Your task to perform on an android device: Add "jbl flip 4" to the cart on bestbuy, then select checkout. Image 0: 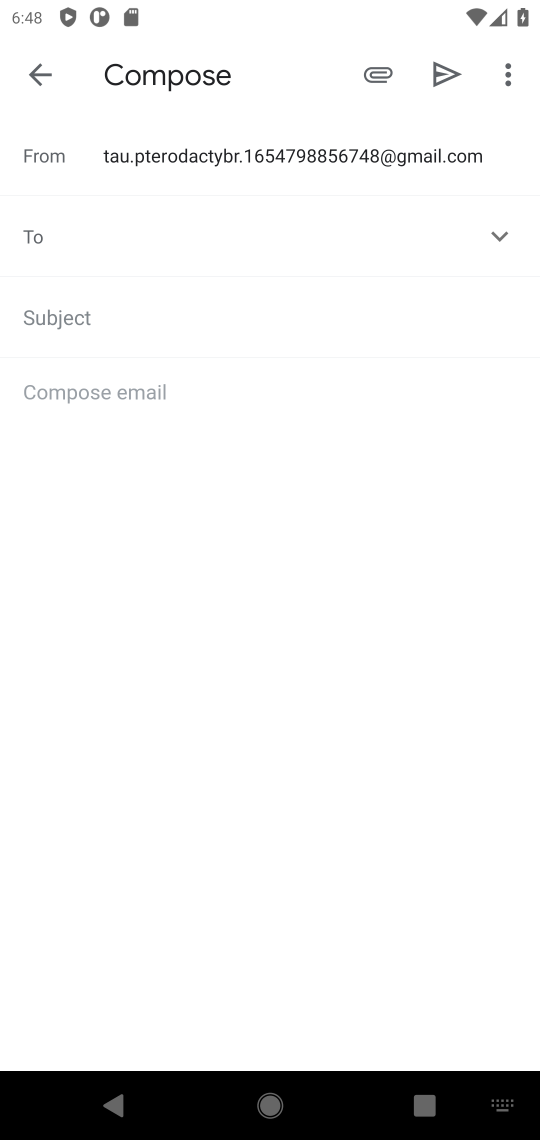
Step 0: press home button
Your task to perform on an android device: Add "jbl flip 4" to the cart on bestbuy, then select checkout. Image 1: 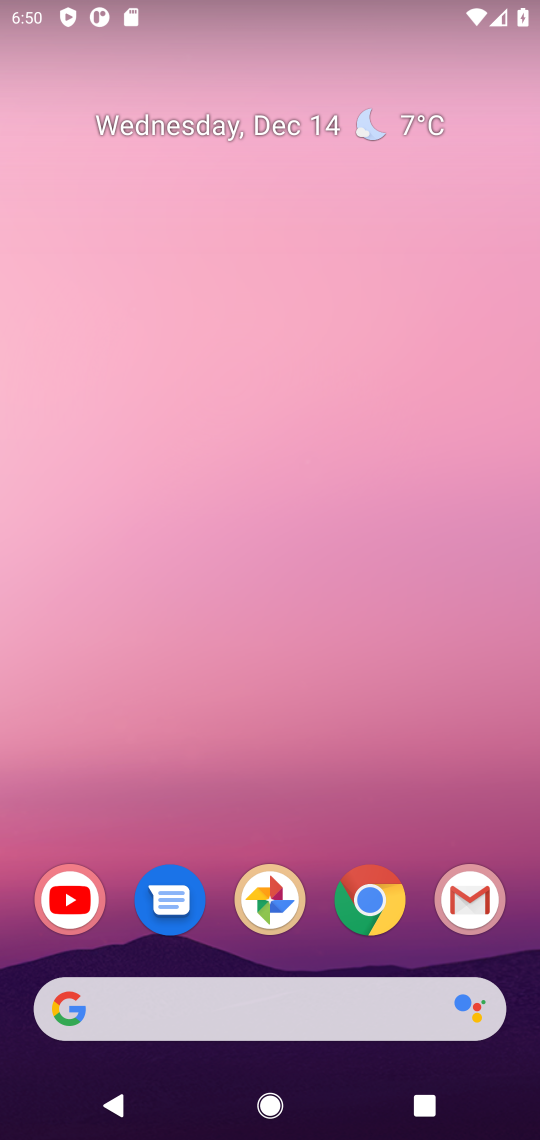
Step 1: click (271, 1011)
Your task to perform on an android device: Add "jbl flip 4" to the cart on bestbuy, then select checkout. Image 2: 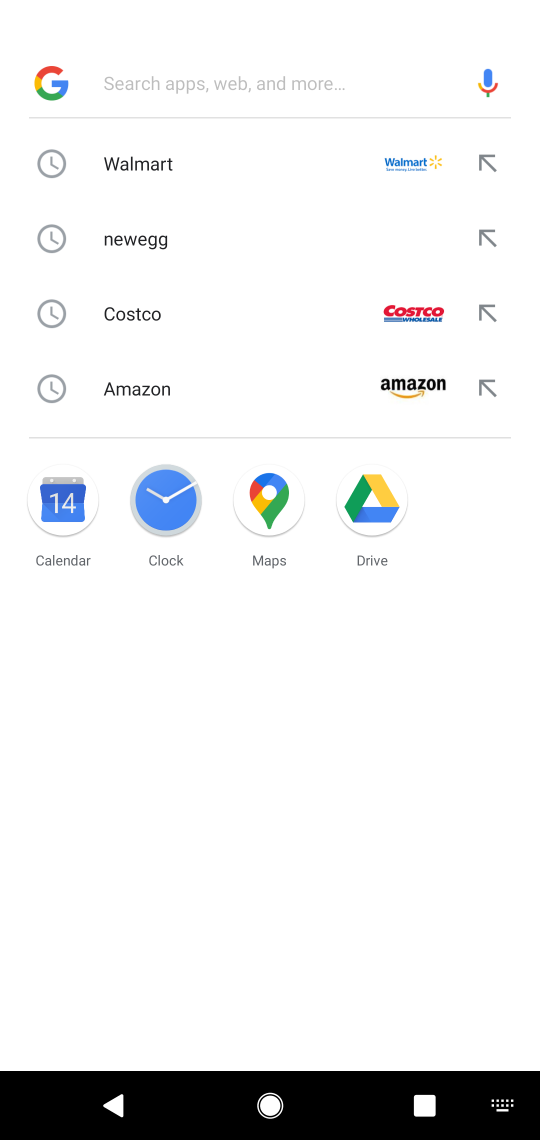
Step 2: type "bestbuy"
Your task to perform on an android device: Add "jbl flip 4" to the cart on bestbuy, then select checkout. Image 3: 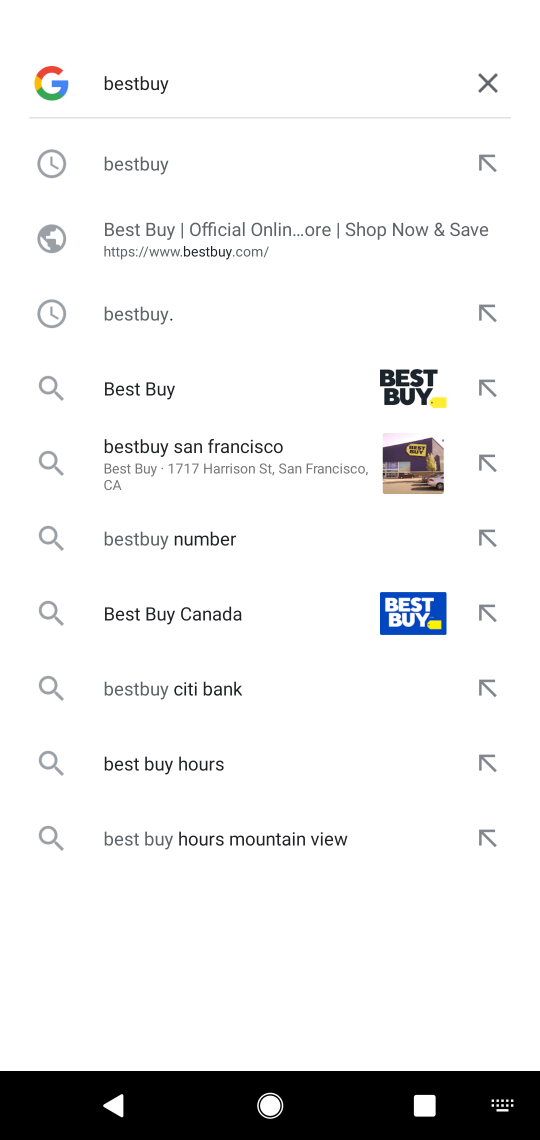
Step 3: click (180, 393)
Your task to perform on an android device: Add "jbl flip 4" to the cart on bestbuy, then select checkout. Image 4: 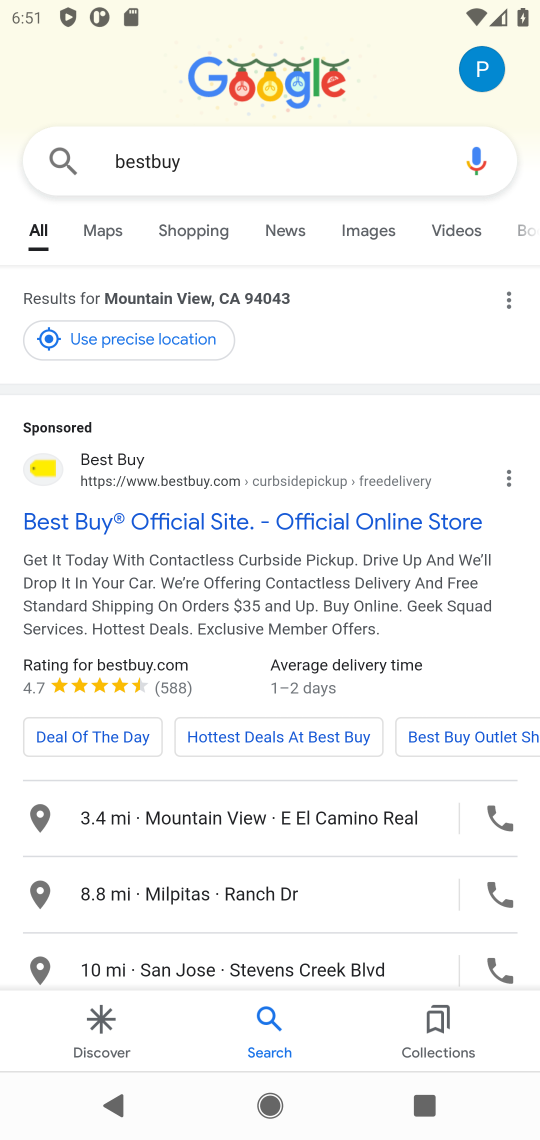
Step 4: click (87, 528)
Your task to perform on an android device: Add "jbl flip 4" to the cart on bestbuy, then select checkout. Image 5: 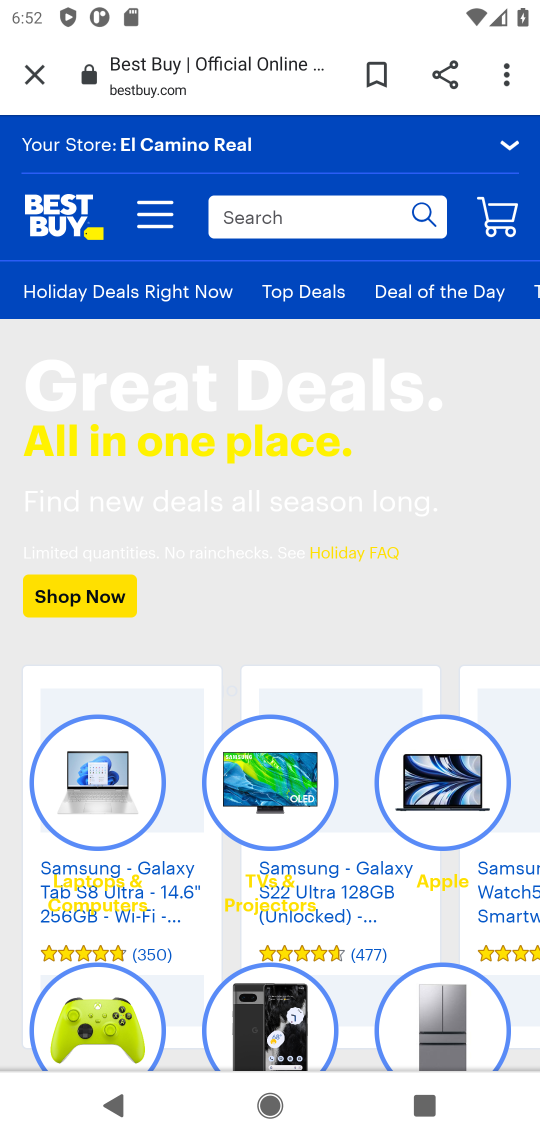
Step 5: click (240, 213)
Your task to perform on an android device: Add "jbl flip 4" to the cart on bestbuy, then select checkout. Image 6: 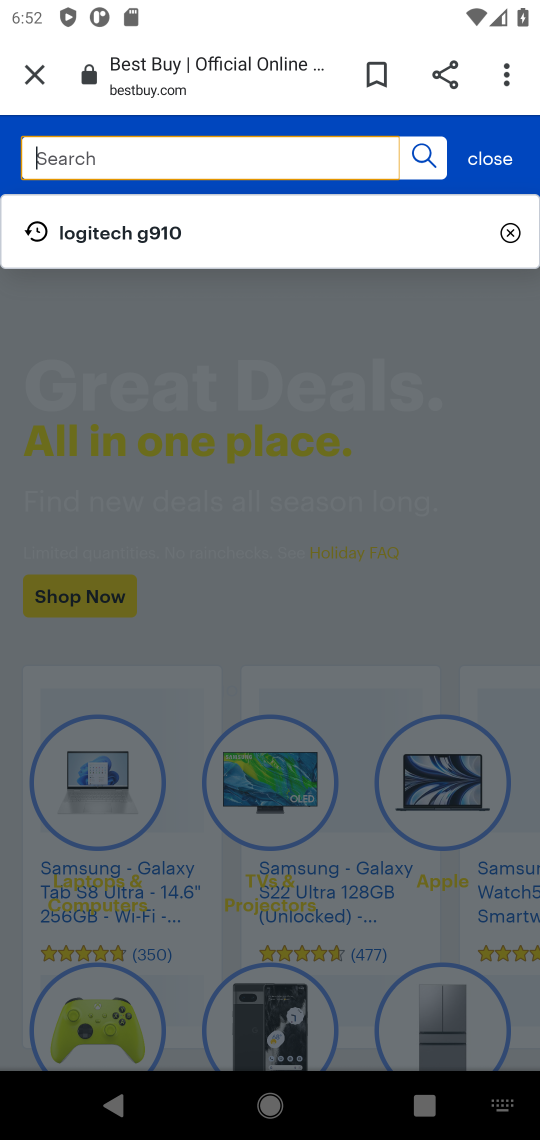
Step 6: type "jbl flip 4"
Your task to perform on an android device: Add "jbl flip 4" to the cart on bestbuy, then select checkout. Image 7: 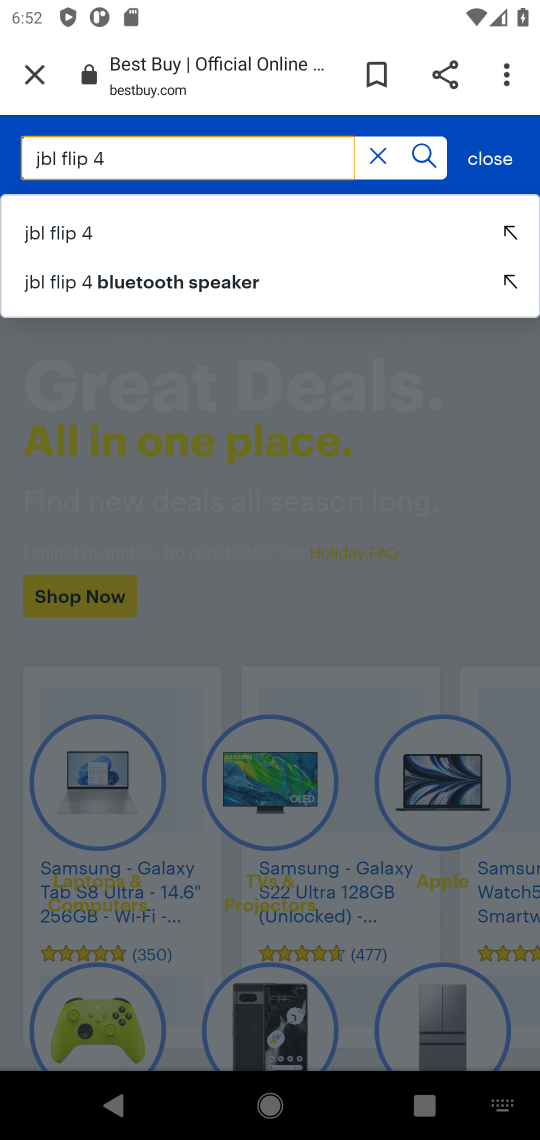
Step 7: click (77, 231)
Your task to perform on an android device: Add "jbl flip 4" to the cart on bestbuy, then select checkout. Image 8: 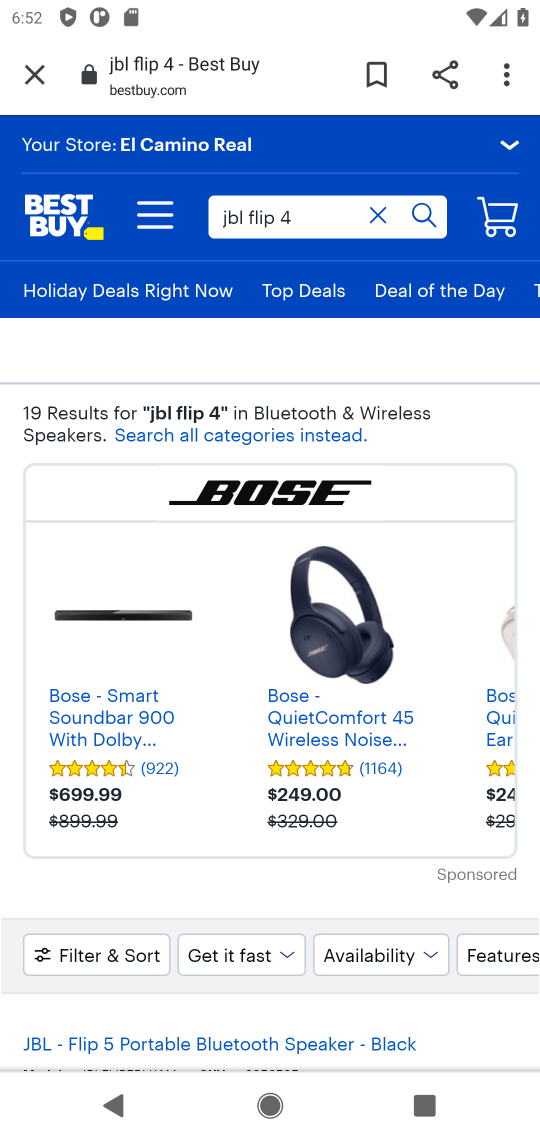
Step 8: drag from (338, 1017) to (338, 707)
Your task to perform on an android device: Add "jbl flip 4" to the cart on bestbuy, then select checkout. Image 9: 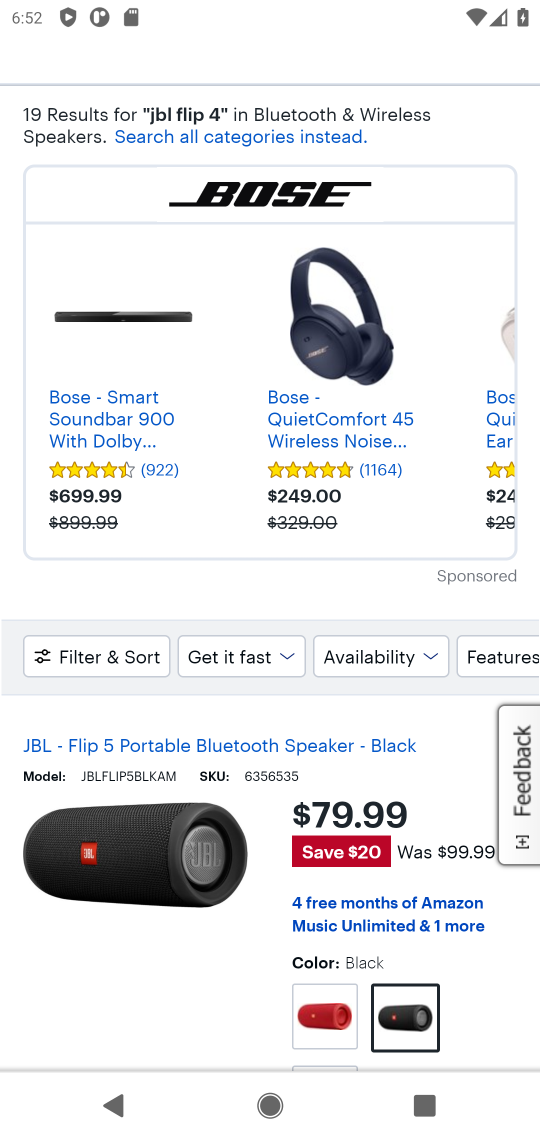
Step 9: drag from (289, 794) to (282, 513)
Your task to perform on an android device: Add "jbl flip 4" to the cart on bestbuy, then select checkout. Image 10: 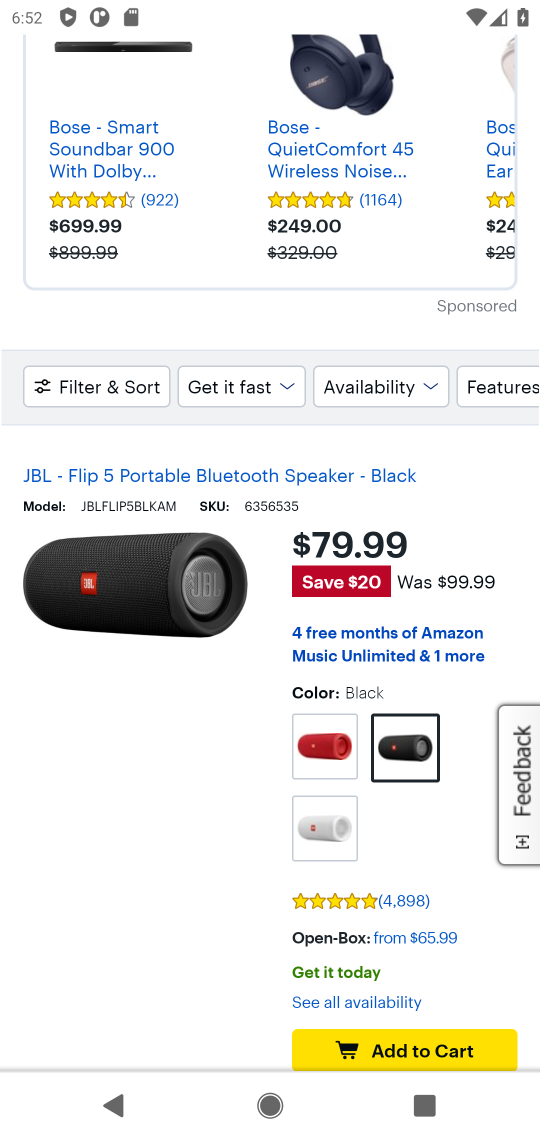
Step 10: click (389, 1047)
Your task to perform on an android device: Add "jbl flip 4" to the cart on bestbuy, then select checkout. Image 11: 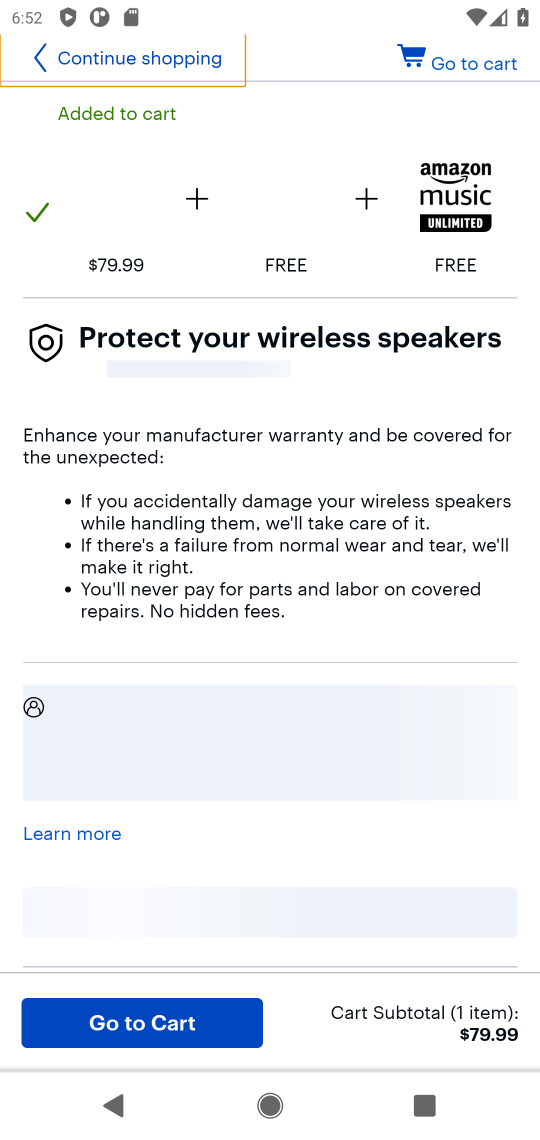
Step 11: click (120, 1030)
Your task to perform on an android device: Add "jbl flip 4" to the cart on bestbuy, then select checkout. Image 12: 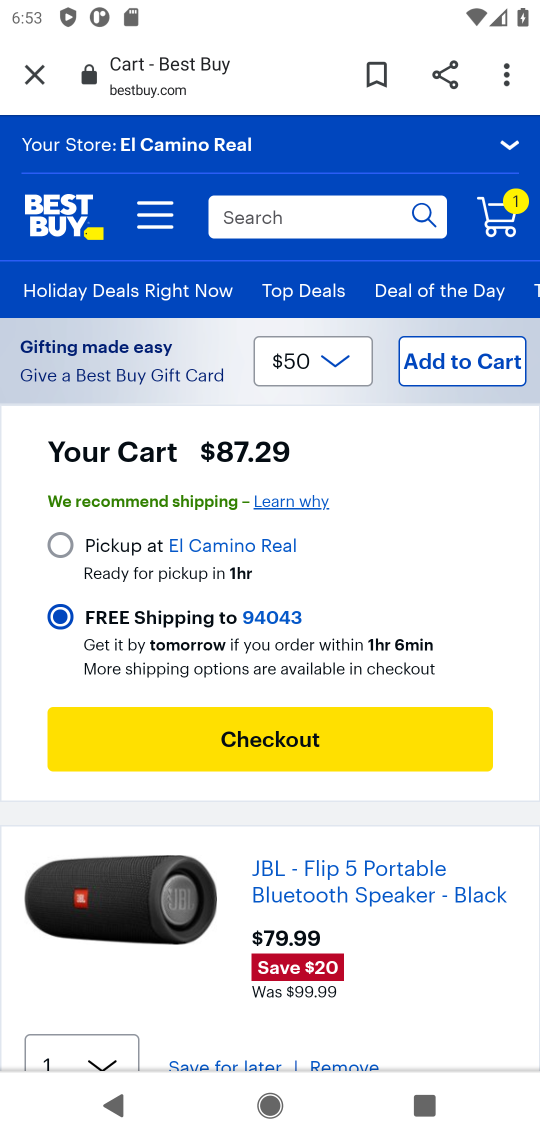
Step 12: click (241, 725)
Your task to perform on an android device: Add "jbl flip 4" to the cart on bestbuy, then select checkout. Image 13: 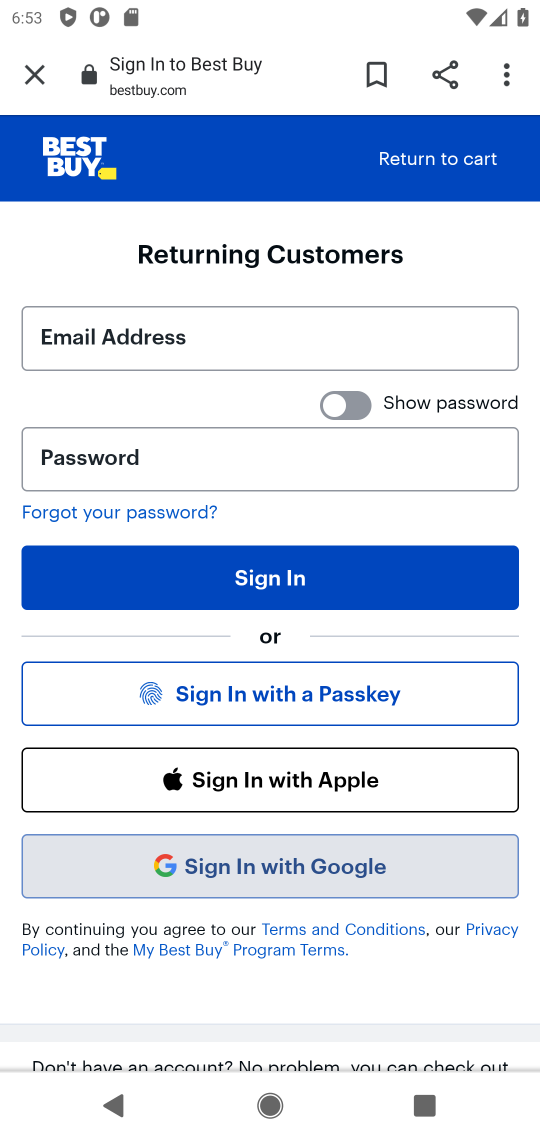
Step 13: task complete